Your task to perform on an android device: turn on translation in the chrome app Image 0: 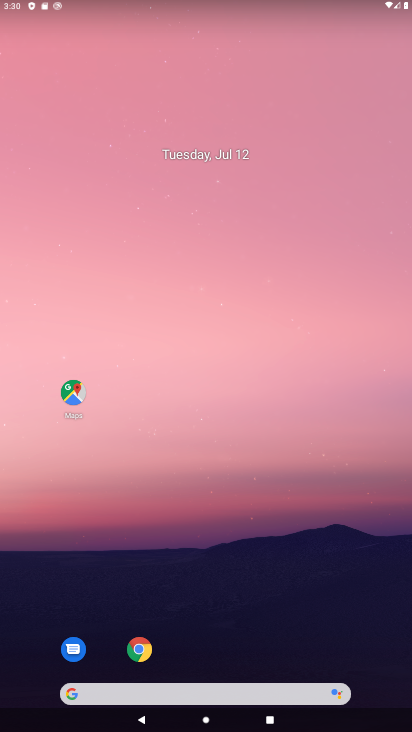
Step 0: press home button
Your task to perform on an android device: turn on translation in the chrome app Image 1: 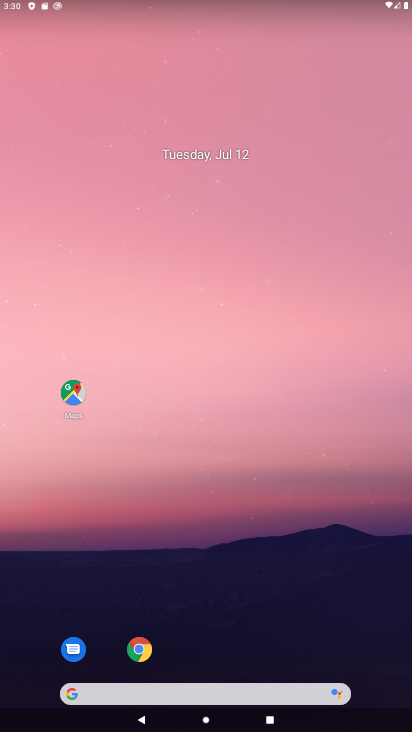
Step 1: click (137, 645)
Your task to perform on an android device: turn on translation in the chrome app Image 2: 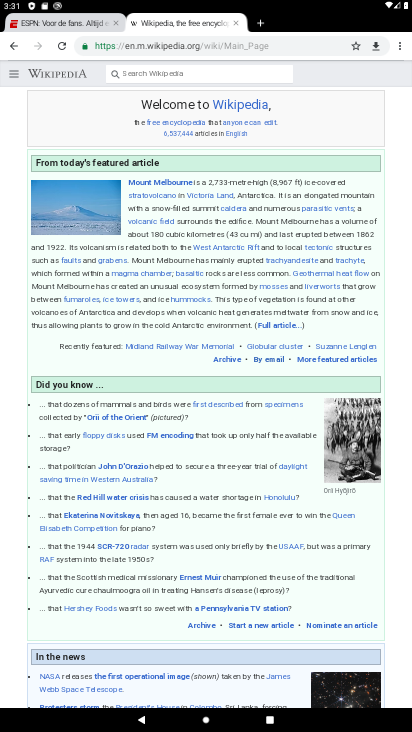
Step 2: click (399, 46)
Your task to perform on an android device: turn on translation in the chrome app Image 3: 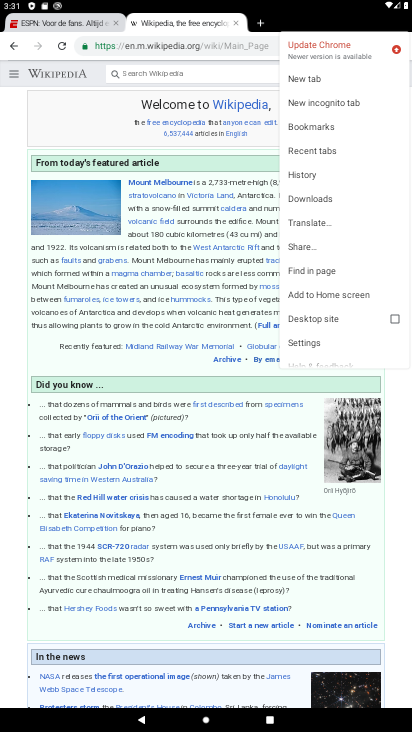
Step 3: click (331, 340)
Your task to perform on an android device: turn on translation in the chrome app Image 4: 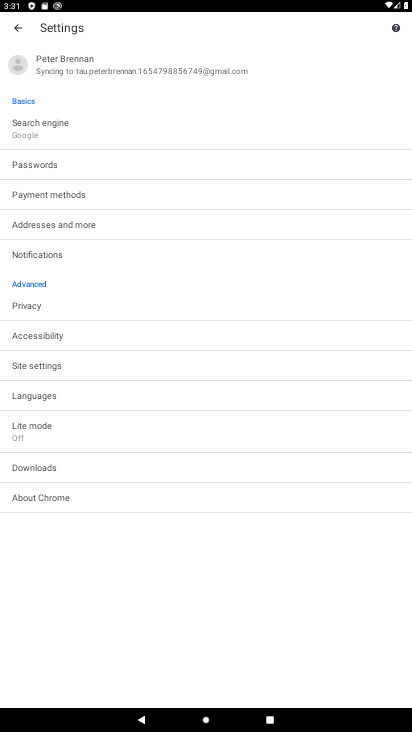
Step 4: click (67, 391)
Your task to perform on an android device: turn on translation in the chrome app Image 5: 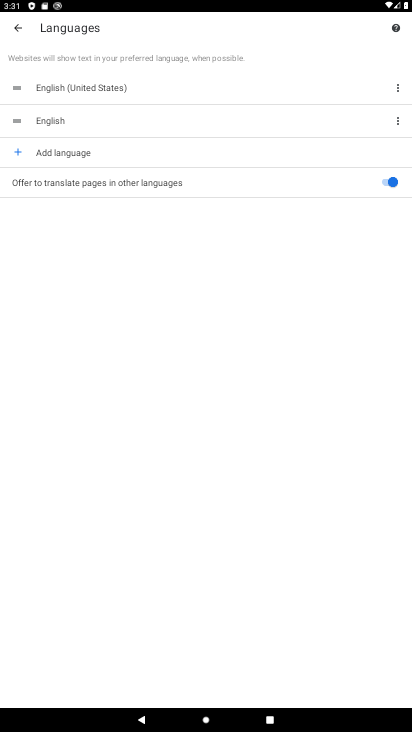
Step 5: task complete